Your task to perform on an android device: Check the news Image 0: 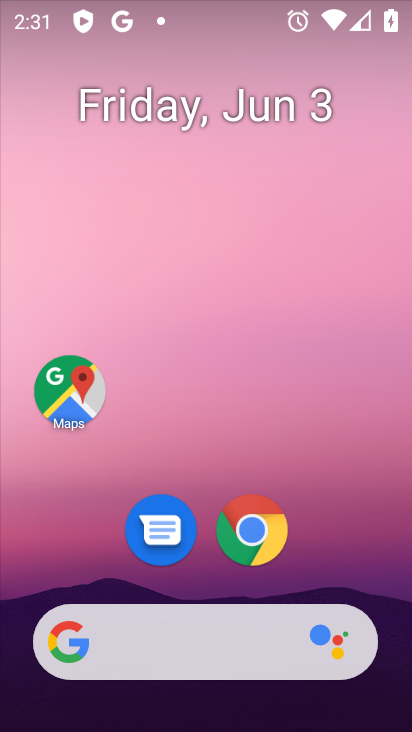
Step 0: click (223, 616)
Your task to perform on an android device: Check the news Image 1: 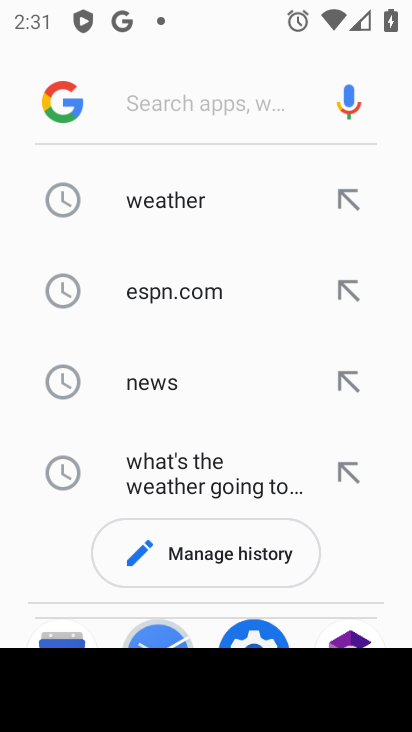
Step 1: click (162, 382)
Your task to perform on an android device: Check the news Image 2: 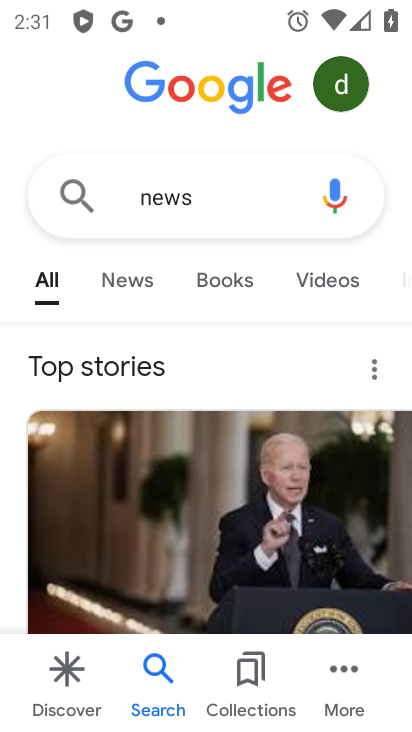
Step 2: task complete